Your task to perform on an android device: toggle improve location accuracy Image 0: 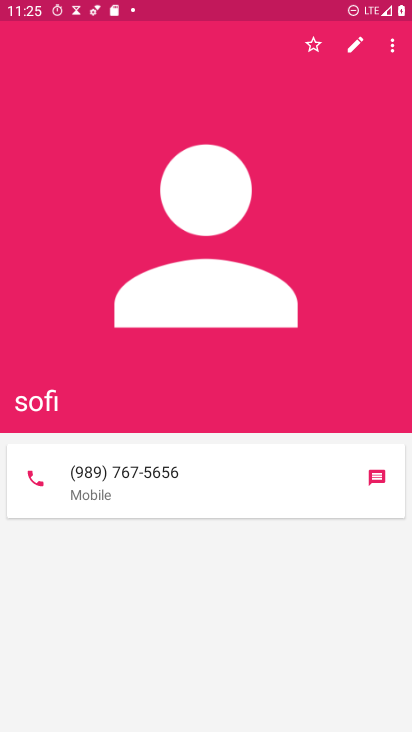
Step 0: press home button
Your task to perform on an android device: toggle improve location accuracy Image 1: 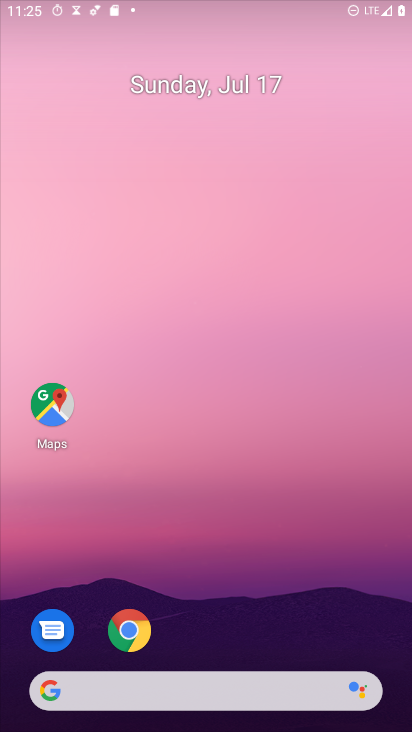
Step 1: drag from (244, 700) to (166, 6)
Your task to perform on an android device: toggle improve location accuracy Image 2: 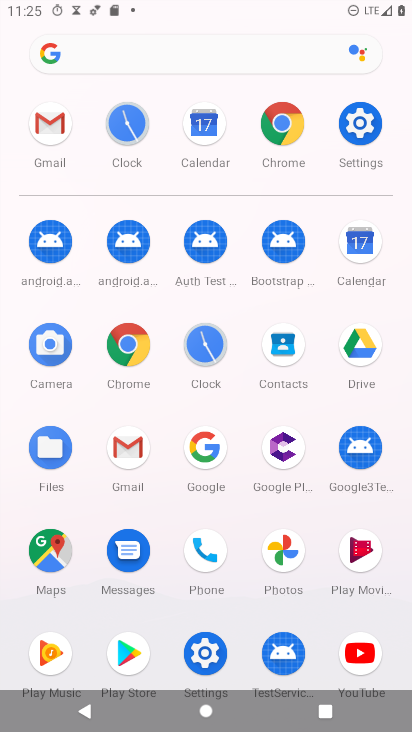
Step 2: click (363, 116)
Your task to perform on an android device: toggle improve location accuracy Image 3: 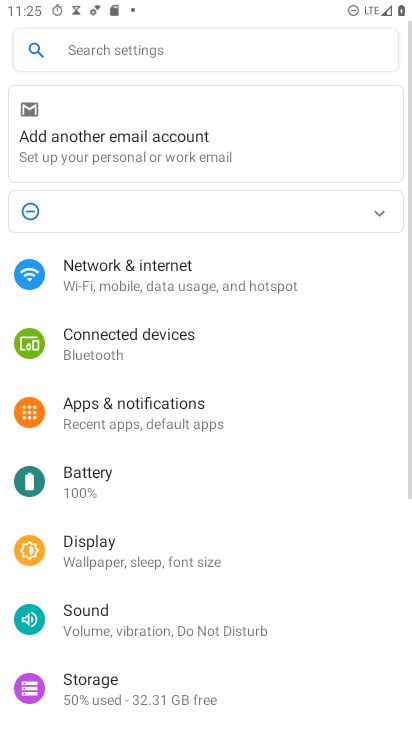
Step 3: drag from (187, 449) to (205, 218)
Your task to perform on an android device: toggle improve location accuracy Image 4: 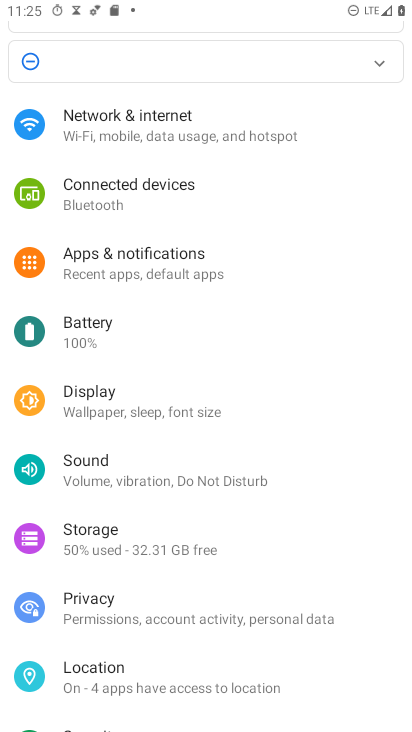
Step 4: click (133, 685)
Your task to perform on an android device: toggle improve location accuracy Image 5: 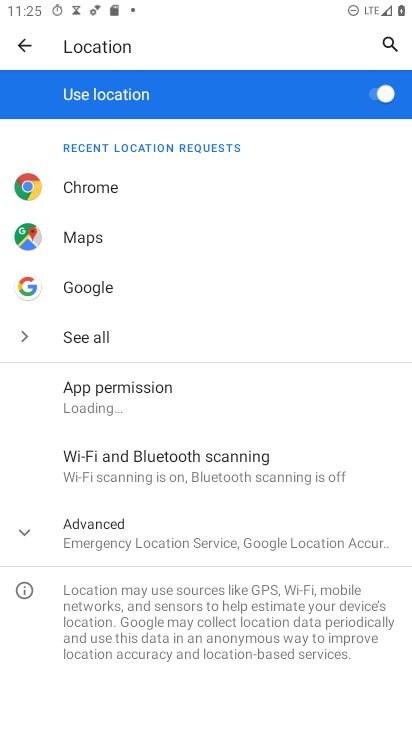
Step 5: click (203, 536)
Your task to perform on an android device: toggle improve location accuracy Image 6: 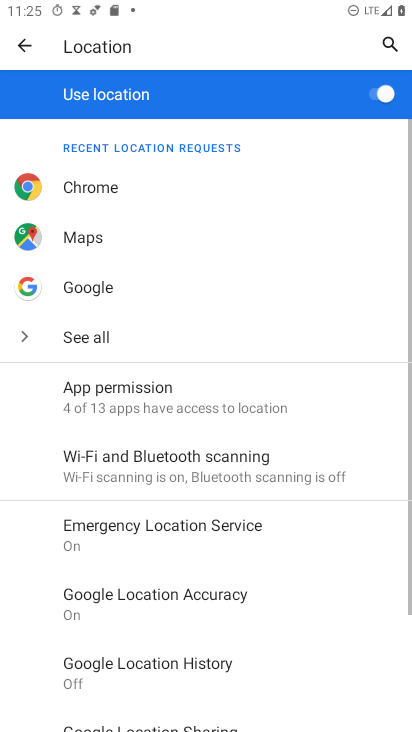
Step 6: click (205, 605)
Your task to perform on an android device: toggle improve location accuracy Image 7: 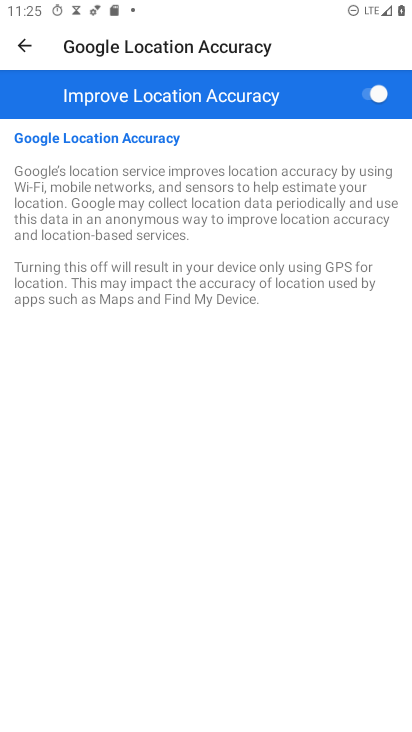
Step 7: click (382, 96)
Your task to perform on an android device: toggle improve location accuracy Image 8: 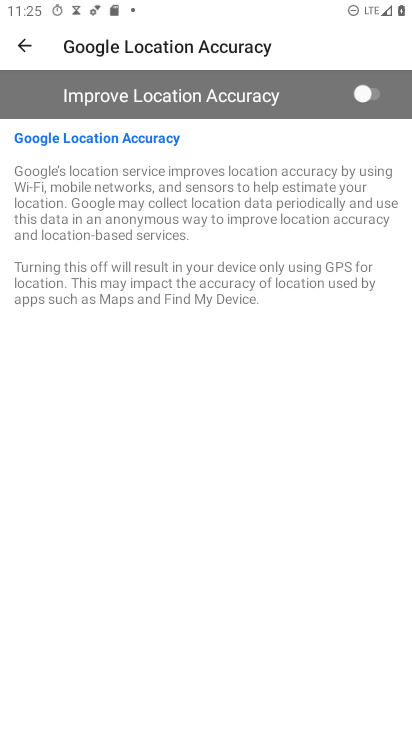
Step 8: task complete